Your task to perform on an android device: turn on airplane mode Image 0: 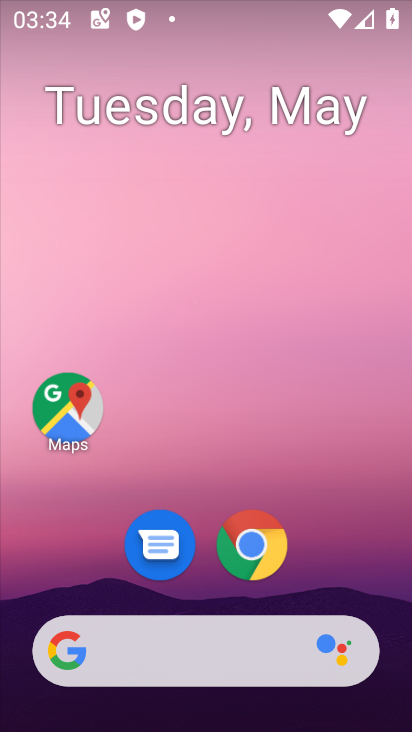
Step 0: drag from (397, 590) to (332, 139)
Your task to perform on an android device: turn on airplane mode Image 1: 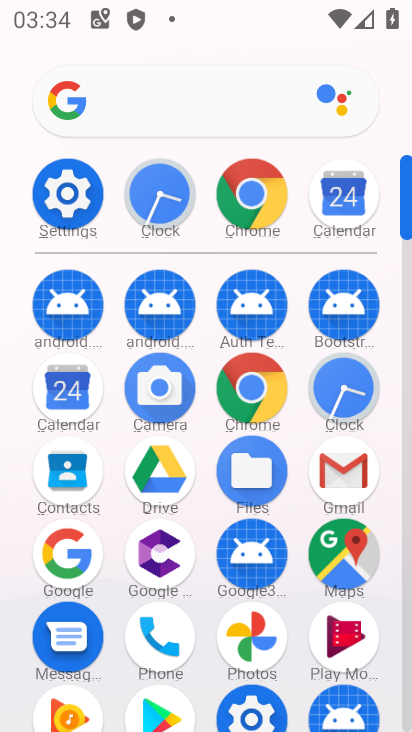
Step 1: click (406, 670)
Your task to perform on an android device: turn on airplane mode Image 2: 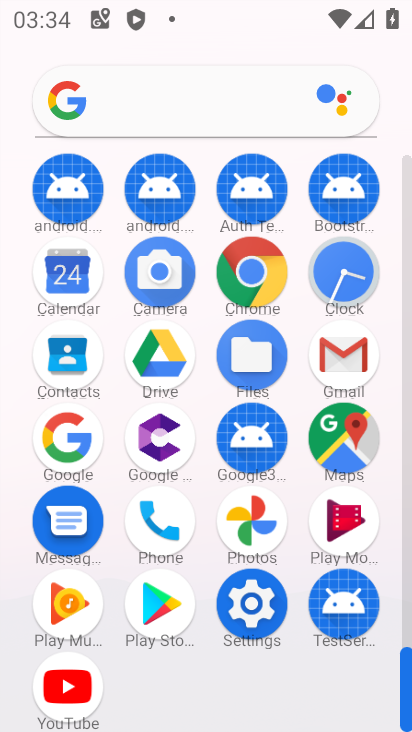
Step 2: click (250, 596)
Your task to perform on an android device: turn on airplane mode Image 3: 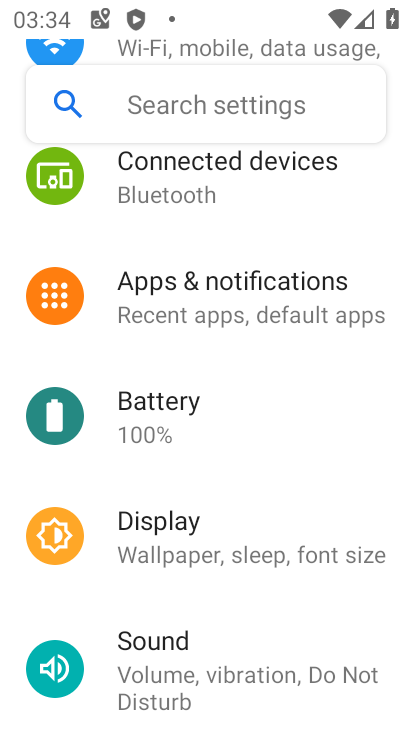
Step 3: drag from (265, 191) to (309, 422)
Your task to perform on an android device: turn on airplane mode Image 4: 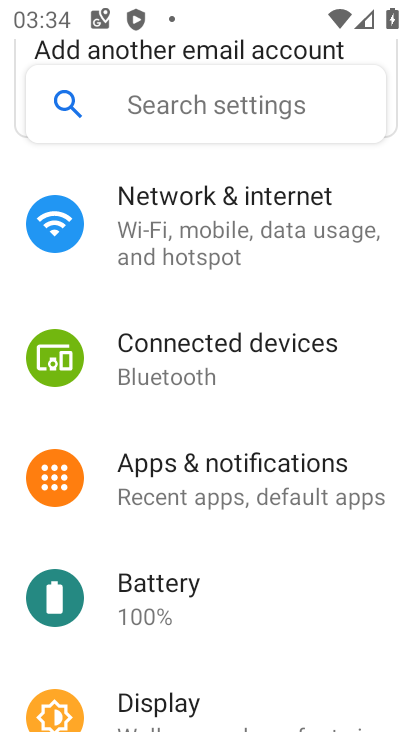
Step 4: click (156, 218)
Your task to perform on an android device: turn on airplane mode Image 5: 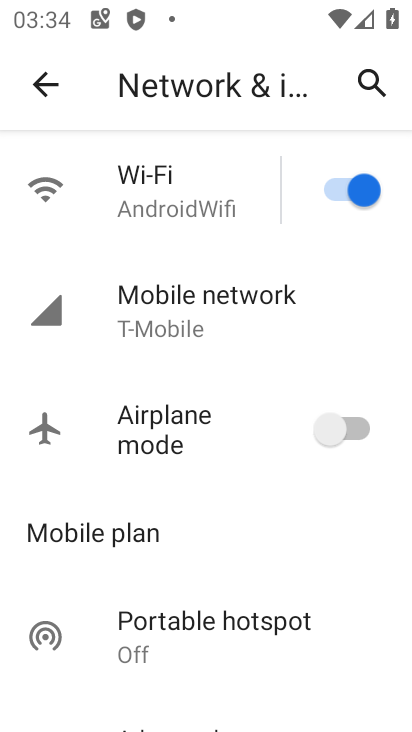
Step 5: click (357, 431)
Your task to perform on an android device: turn on airplane mode Image 6: 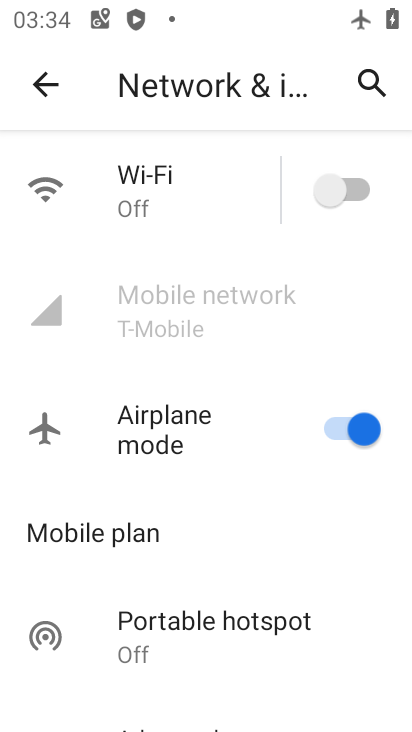
Step 6: task complete